Your task to perform on an android device: add a contact in the contacts app Image 0: 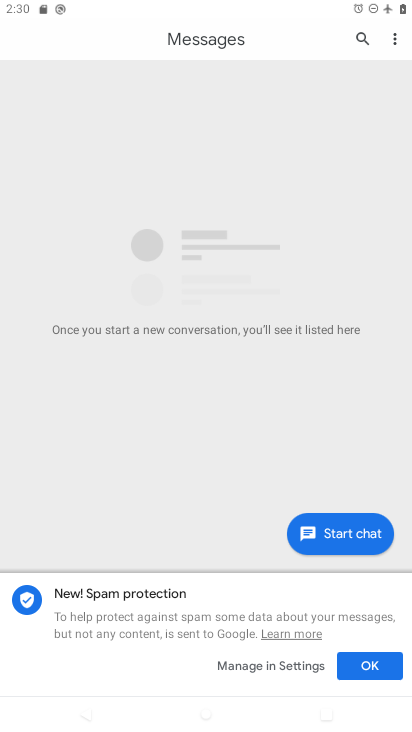
Step 0: press home button
Your task to perform on an android device: add a contact in the contacts app Image 1: 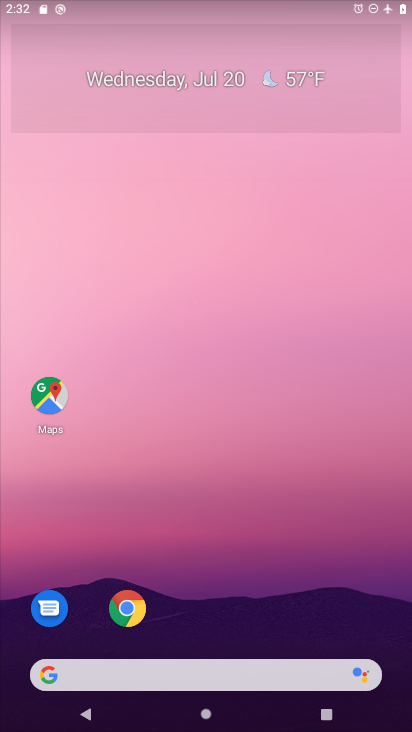
Step 1: drag from (163, 630) to (257, 148)
Your task to perform on an android device: add a contact in the contacts app Image 2: 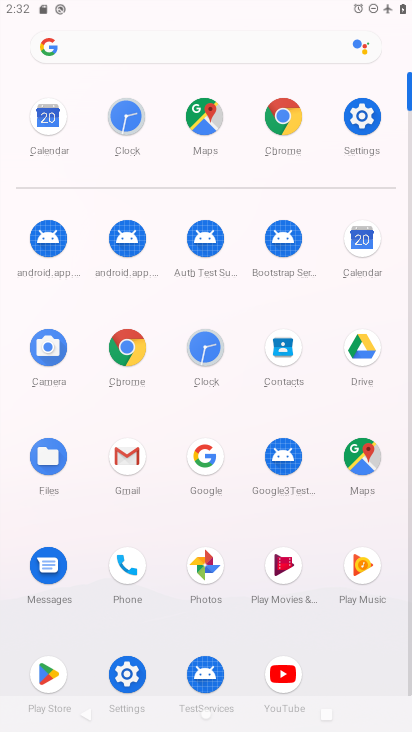
Step 2: click (295, 350)
Your task to perform on an android device: add a contact in the contacts app Image 3: 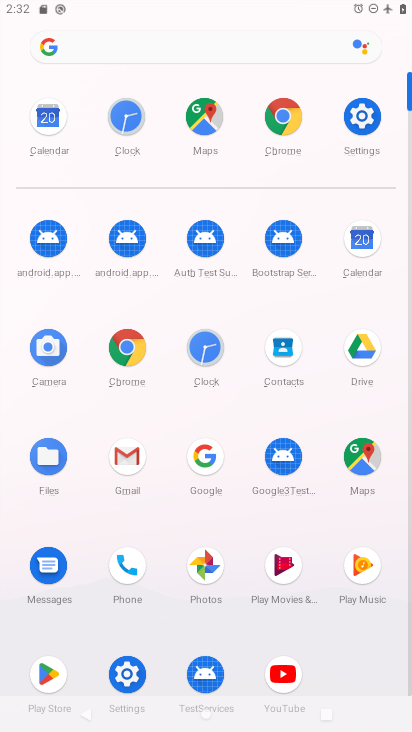
Step 3: click (295, 350)
Your task to perform on an android device: add a contact in the contacts app Image 4: 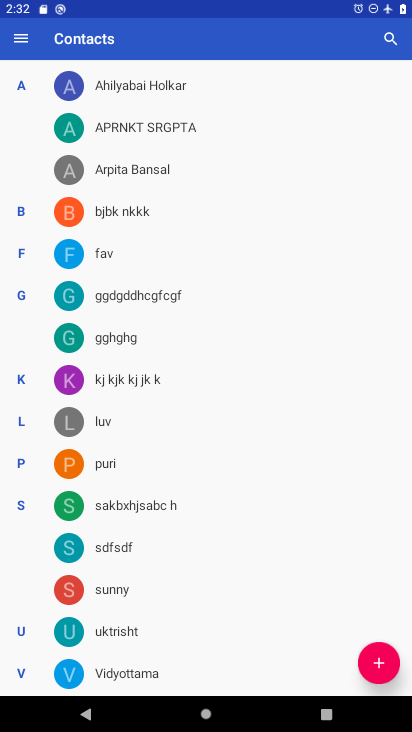
Step 4: click (381, 655)
Your task to perform on an android device: add a contact in the contacts app Image 5: 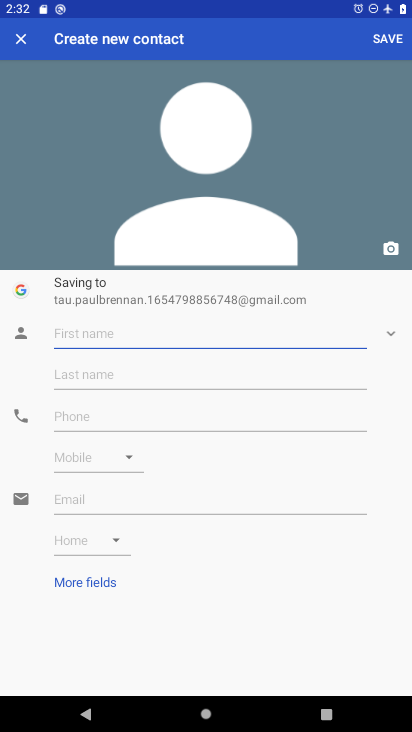
Step 5: type "gj"
Your task to perform on an android device: add a contact in the contacts app Image 6: 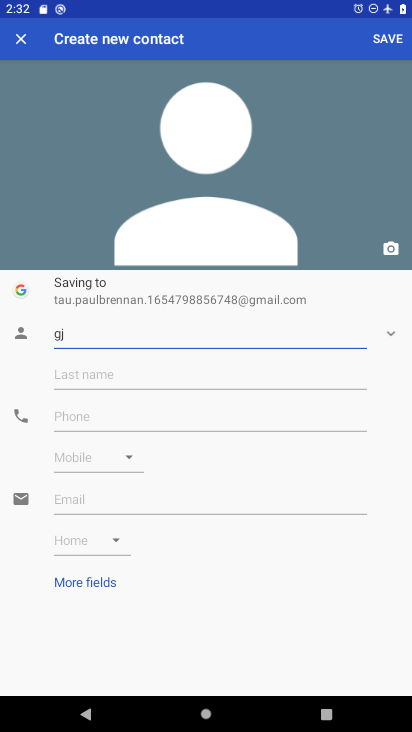
Step 6: click (148, 418)
Your task to perform on an android device: add a contact in the contacts app Image 7: 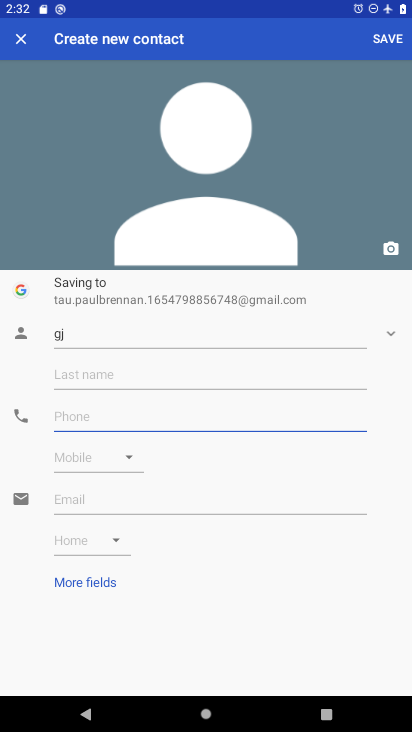
Step 7: type "7877"
Your task to perform on an android device: add a contact in the contacts app Image 8: 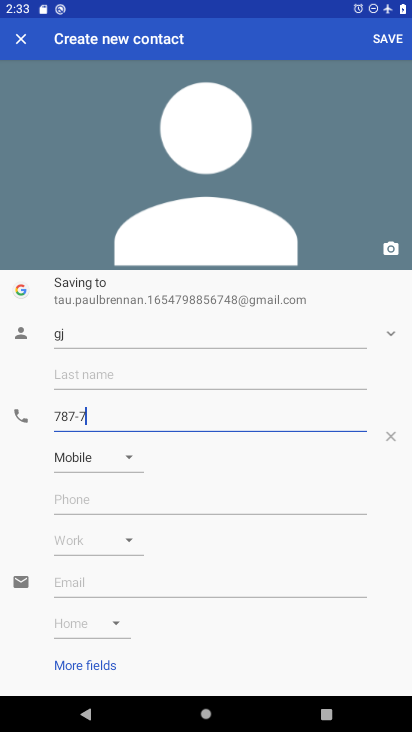
Step 8: click (391, 38)
Your task to perform on an android device: add a contact in the contacts app Image 9: 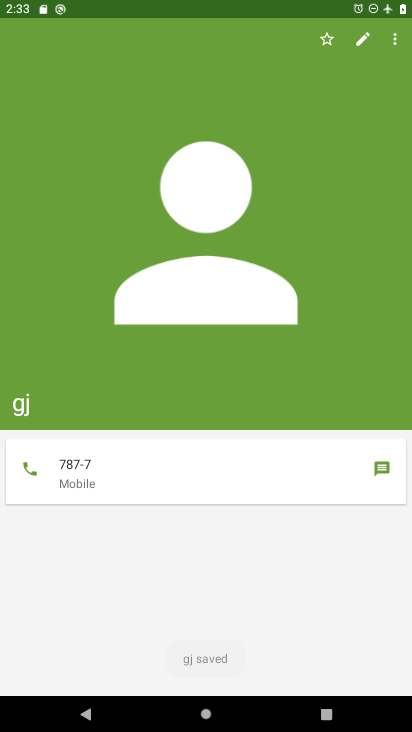
Step 9: task complete